Your task to perform on an android device: Go to Android settings Image 0: 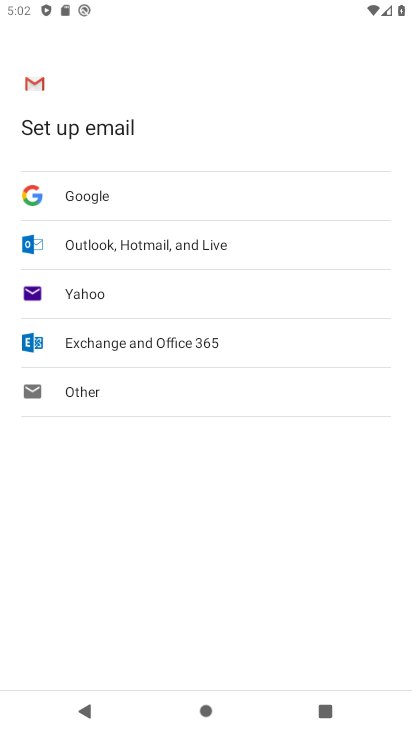
Step 0: press home button
Your task to perform on an android device: Go to Android settings Image 1: 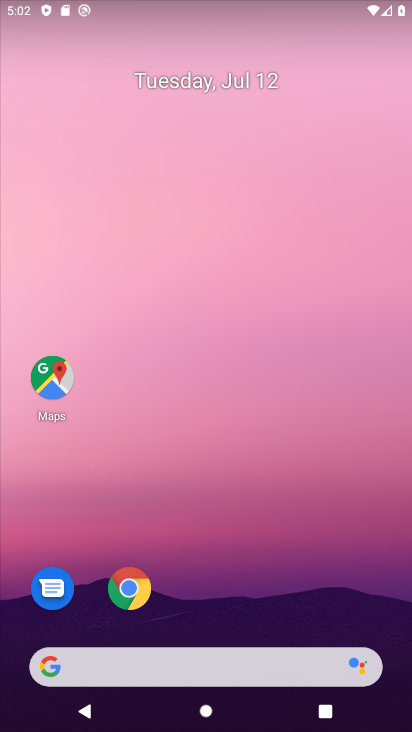
Step 1: drag from (274, 554) to (304, 54)
Your task to perform on an android device: Go to Android settings Image 2: 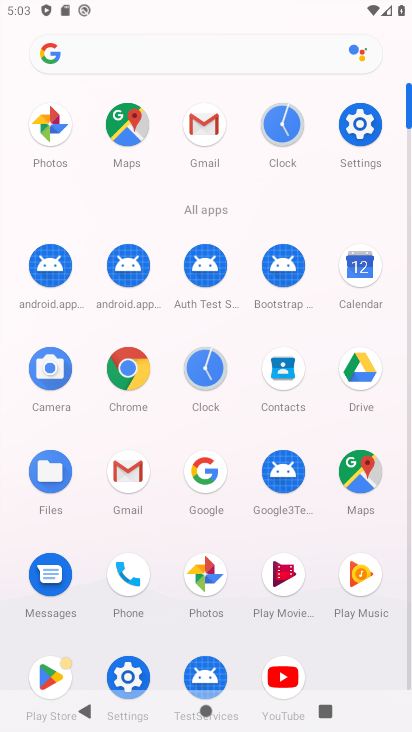
Step 2: click (378, 111)
Your task to perform on an android device: Go to Android settings Image 3: 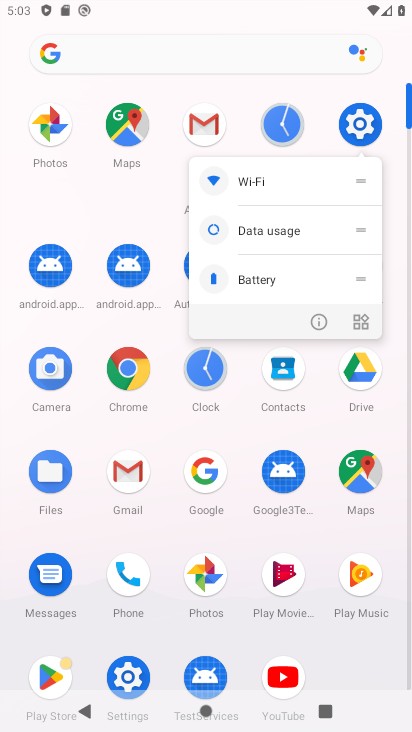
Step 3: click (379, 110)
Your task to perform on an android device: Go to Android settings Image 4: 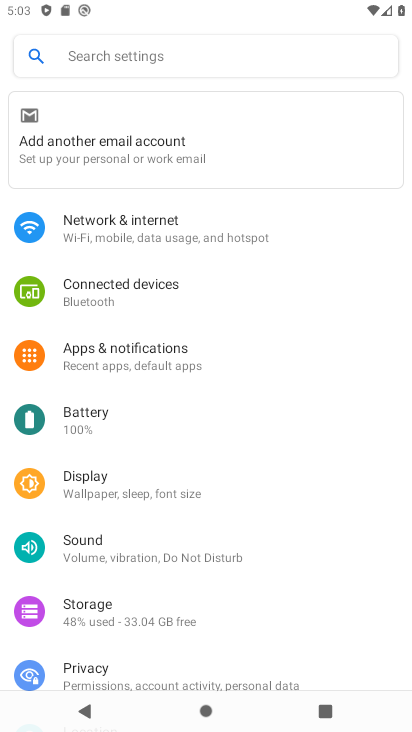
Step 4: task complete